Your task to perform on an android device: turn off wifi Image 0: 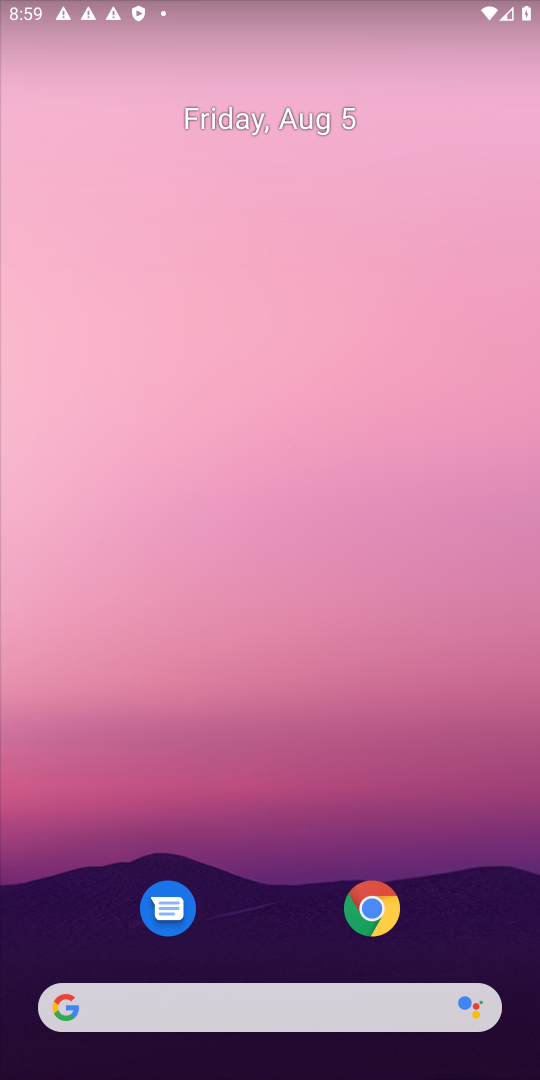
Step 0: drag from (451, 948) to (250, 157)
Your task to perform on an android device: turn off wifi Image 1: 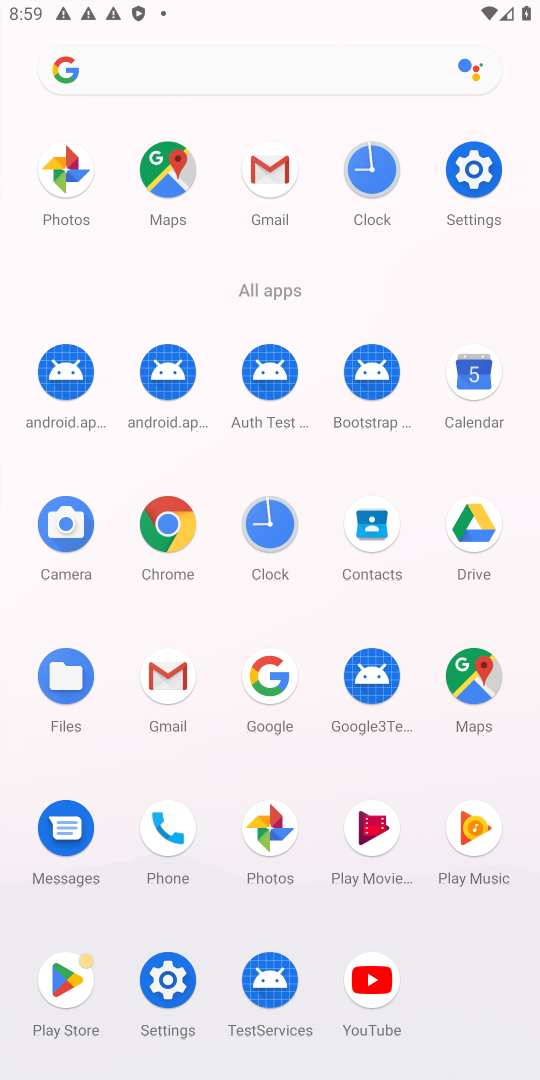
Step 1: click (475, 183)
Your task to perform on an android device: turn off wifi Image 2: 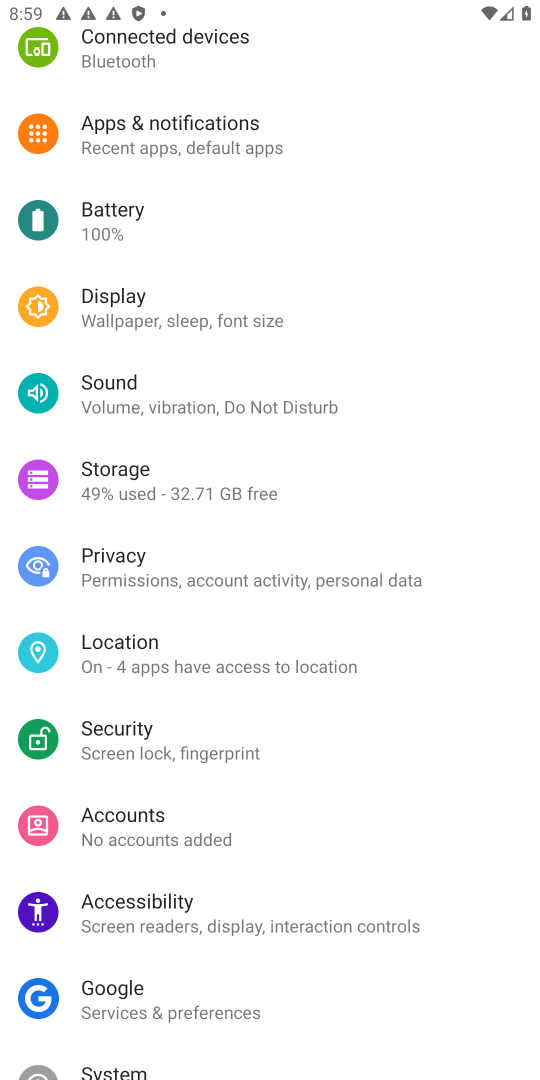
Step 2: drag from (262, 84) to (284, 639)
Your task to perform on an android device: turn off wifi Image 3: 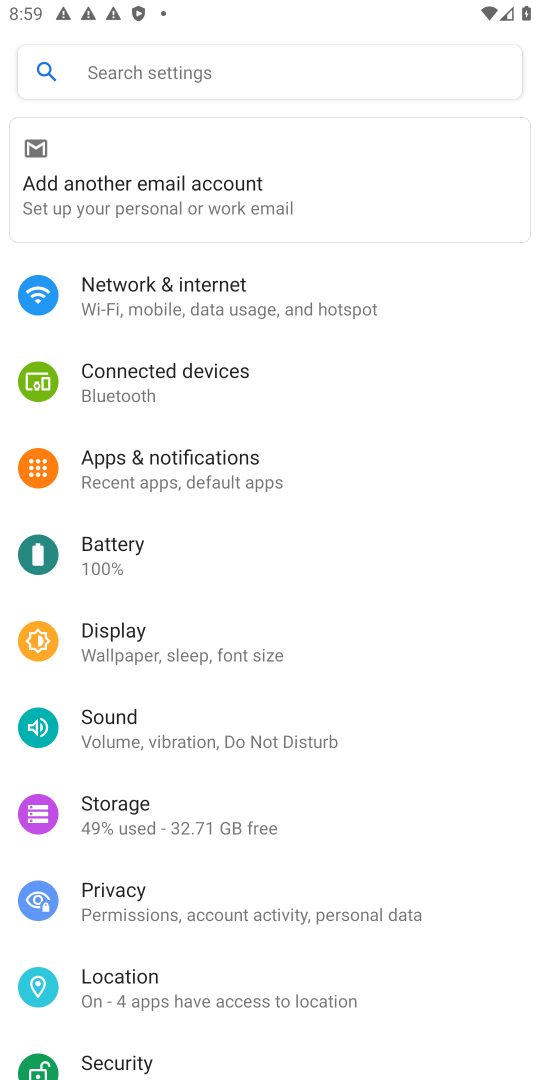
Step 3: click (124, 288)
Your task to perform on an android device: turn off wifi Image 4: 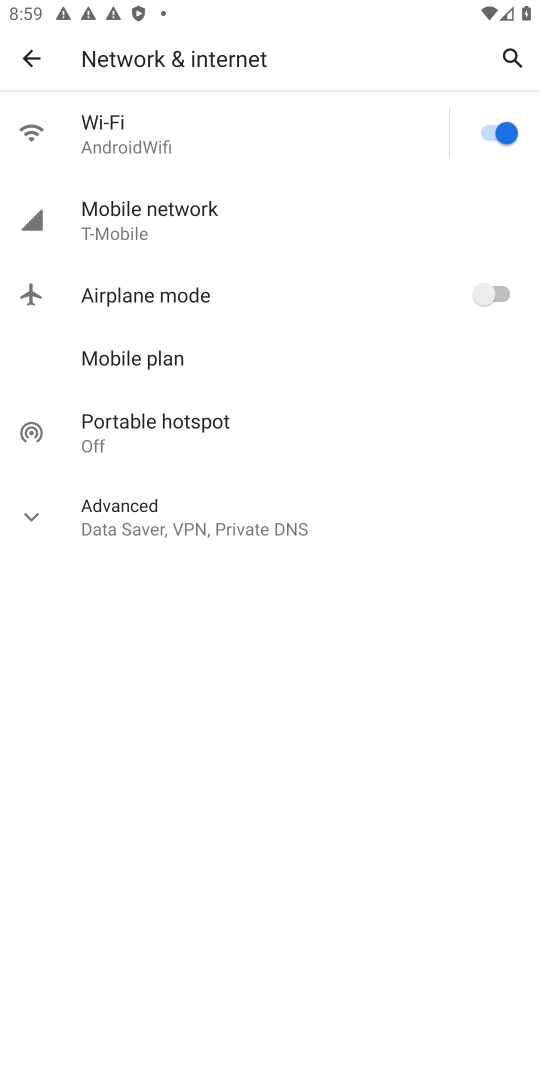
Step 4: click (497, 137)
Your task to perform on an android device: turn off wifi Image 5: 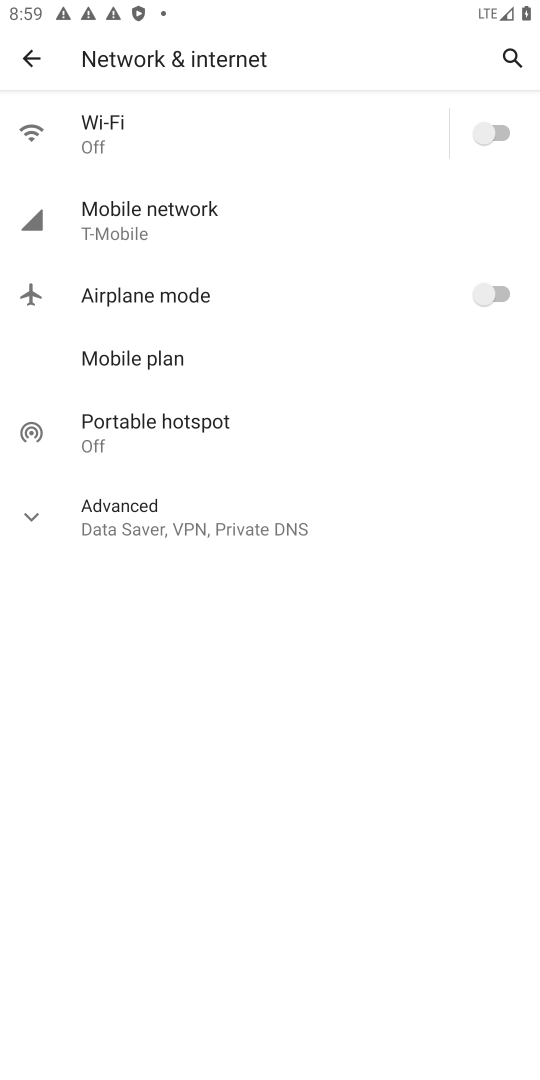
Step 5: task complete